Your task to perform on an android device: Go to Amazon Image 0: 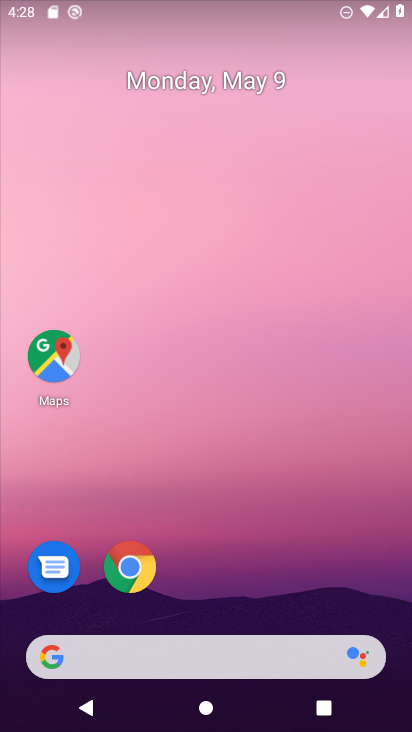
Step 0: click (133, 571)
Your task to perform on an android device: Go to Amazon Image 1: 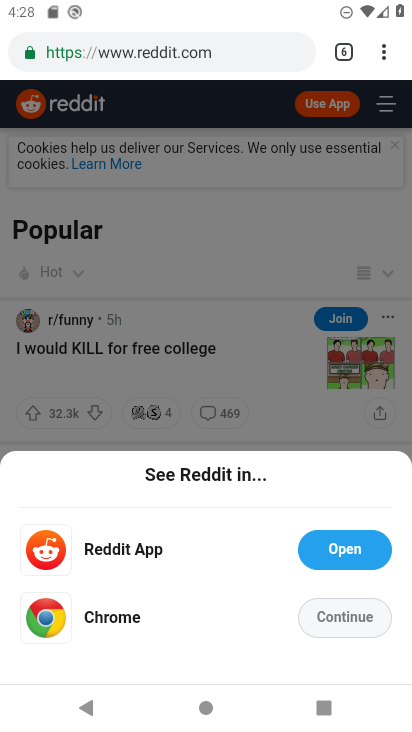
Step 1: click (341, 49)
Your task to perform on an android device: Go to Amazon Image 2: 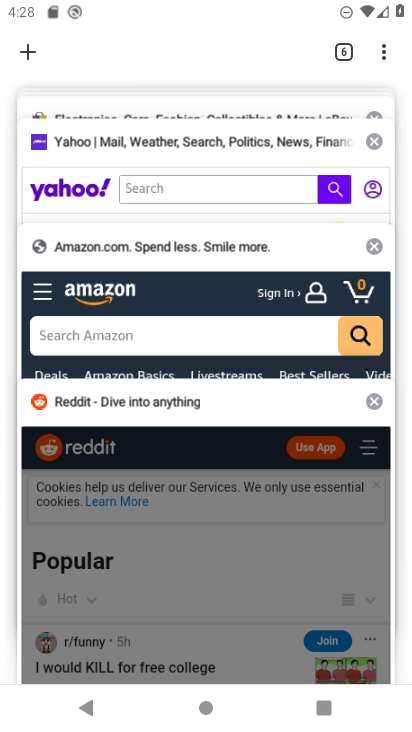
Step 2: click (255, 297)
Your task to perform on an android device: Go to Amazon Image 3: 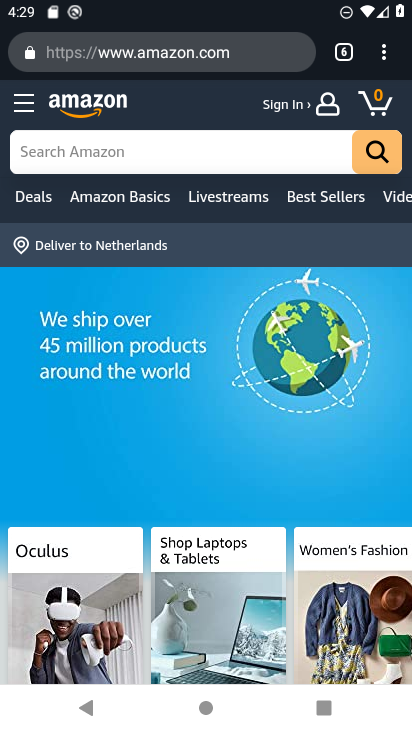
Step 3: task complete